Your task to perform on an android device: turn off notifications settings in the gmail app Image 0: 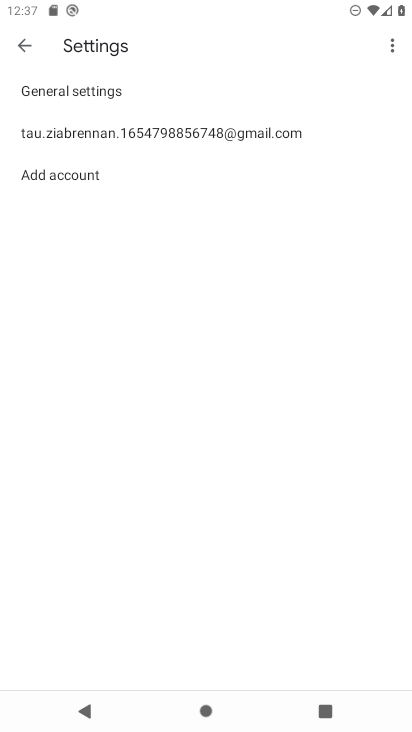
Step 0: press home button
Your task to perform on an android device: turn off notifications settings in the gmail app Image 1: 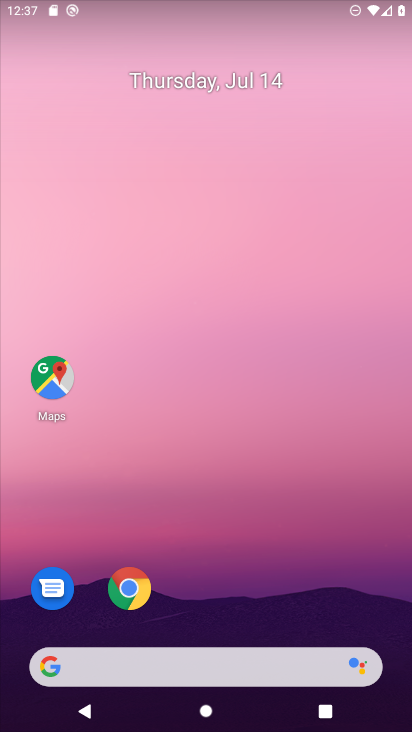
Step 1: drag from (152, 668) to (294, 85)
Your task to perform on an android device: turn off notifications settings in the gmail app Image 2: 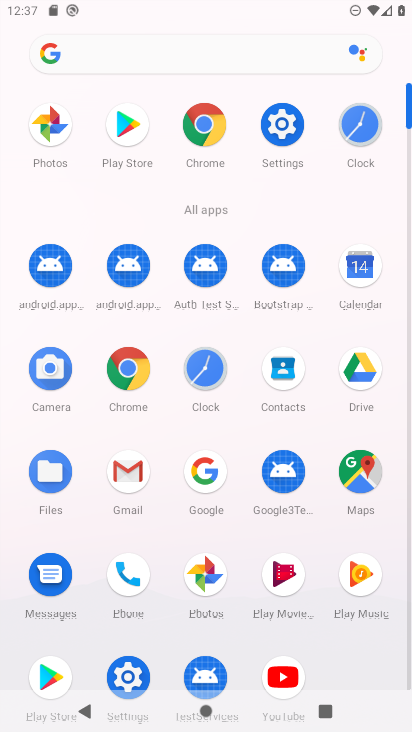
Step 2: click (135, 466)
Your task to perform on an android device: turn off notifications settings in the gmail app Image 3: 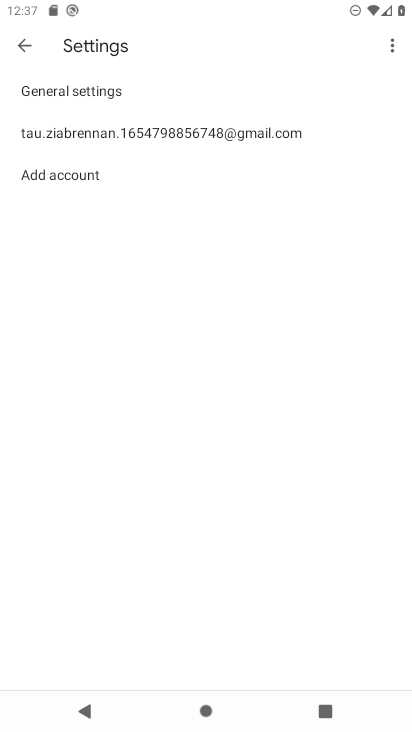
Step 3: click (164, 127)
Your task to perform on an android device: turn off notifications settings in the gmail app Image 4: 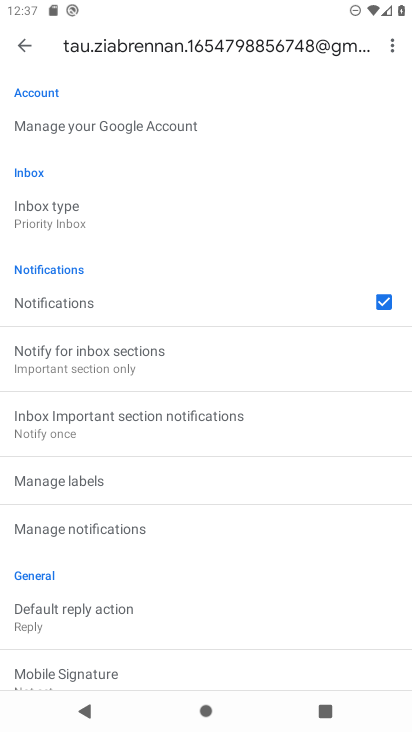
Step 4: click (386, 297)
Your task to perform on an android device: turn off notifications settings in the gmail app Image 5: 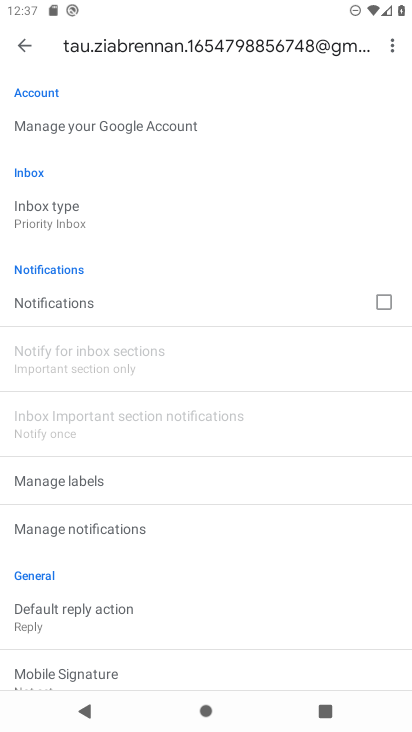
Step 5: task complete